Your task to perform on an android device: turn notification dots off Image 0: 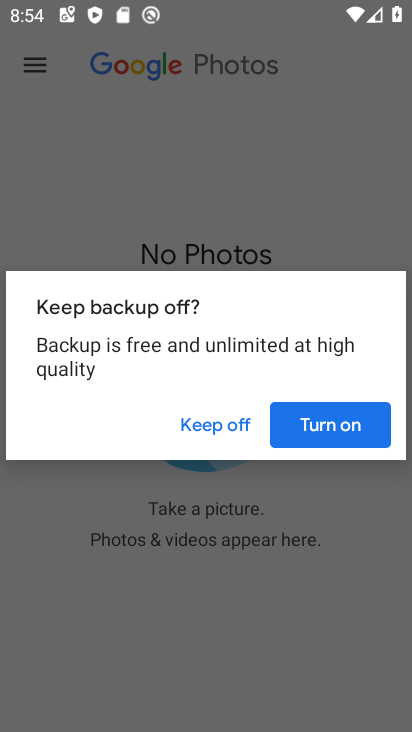
Step 0: press home button
Your task to perform on an android device: turn notification dots off Image 1: 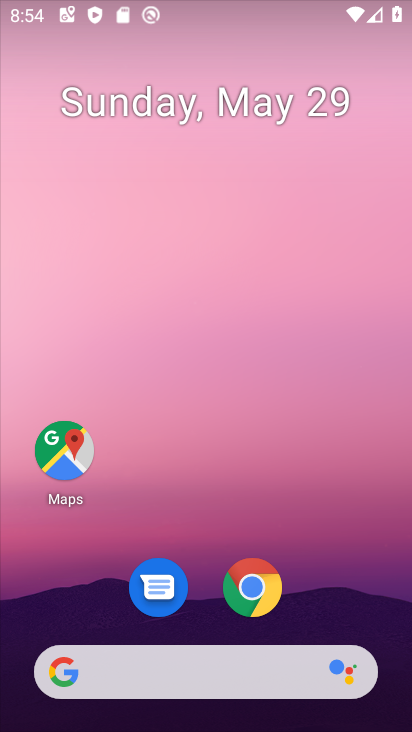
Step 1: drag from (216, 493) to (292, 0)
Your task to perform on an android device: turn notification dots off Image 2: 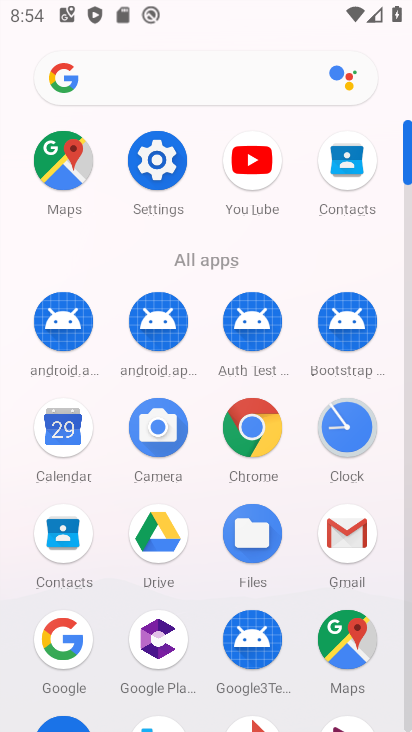
Step 2: click (167, 174)
Your task to perform on an android device: turn notification dots off Image 3: 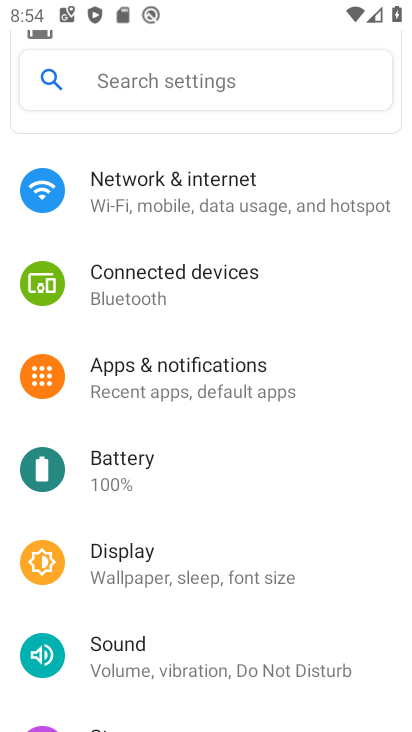
Step 3: click (181, 391)
Your task to perform on an android device: turn notification dots off Image 4: 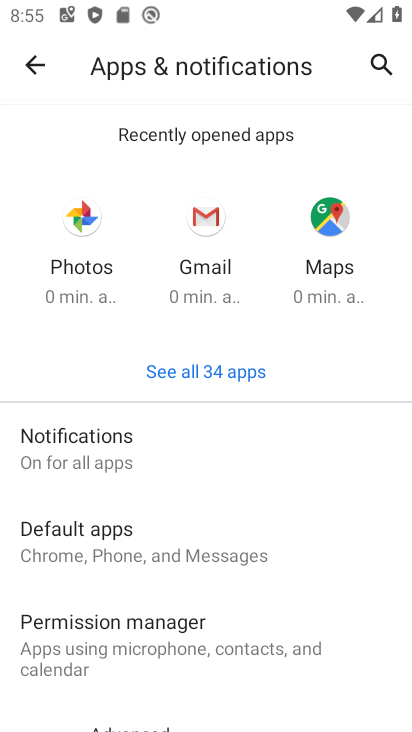
Step 4: click (116, 462)
Your task to perform on an android device: turn notification dots off Image 5: 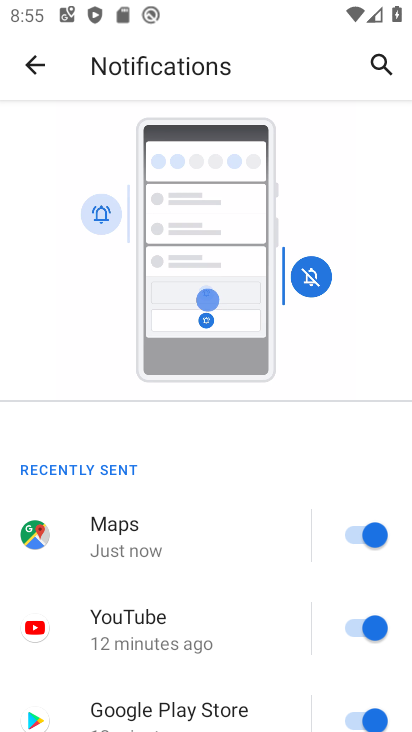
Step 5: drag from (136, 661) to (229, 108)
Your task to perform on an android device: turn notification dots off Image 6: 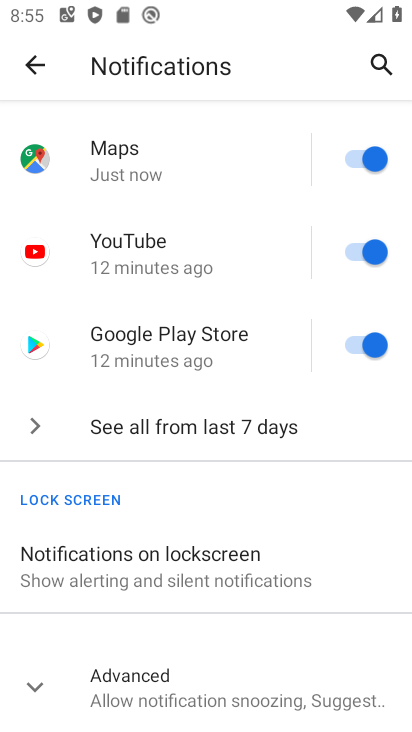
Step 6: click (173, 679)
Your task to perform on an android device: turn notification dots off Image 7: 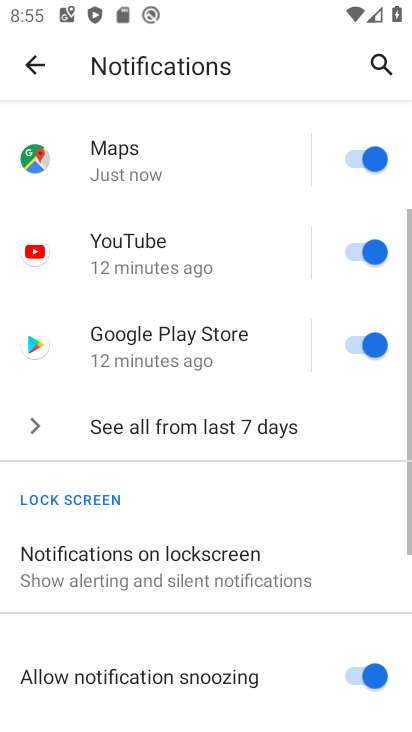
Step 7: drag from (182, 659) to (236, 280)
Your task to perform on an android device: turn notification dots off Image 8: 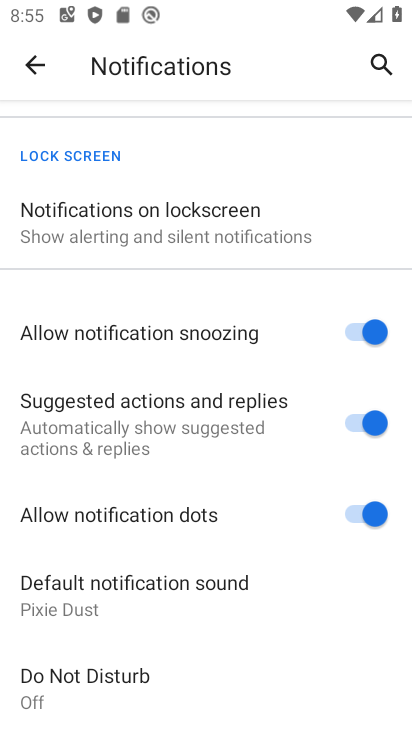
Step 8: click (379, 509)
Your task to perform on an android device: turn notification dots off Image 9: 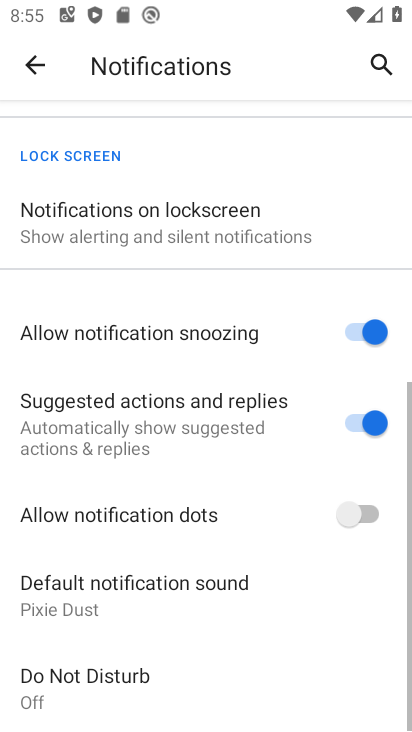
Step 9: task complete